Your task to perform on an android device: turn on location history Image 0: 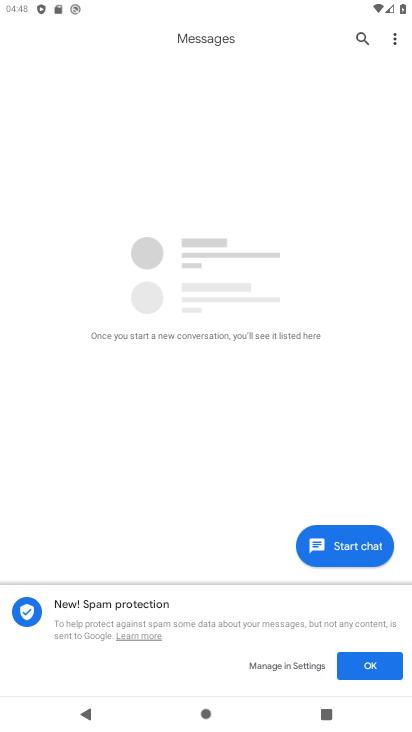
Step 0: press home button
Your task to perform on an android device: turn on location history Image 1: 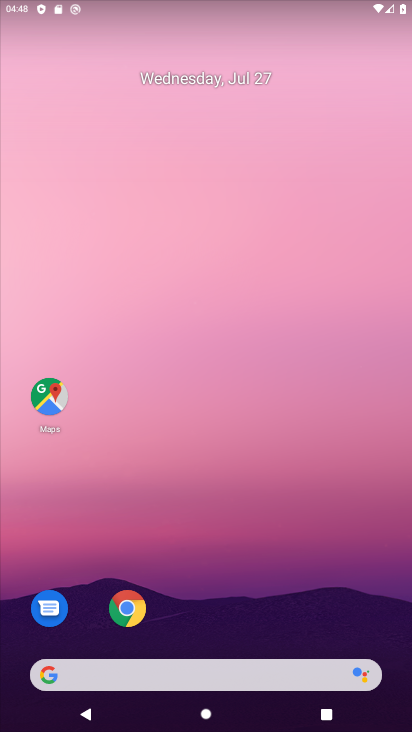
Step 1: drag from (278, 632) to (286, 283)
Your task to perform on an android device: turn on location history Image 2: 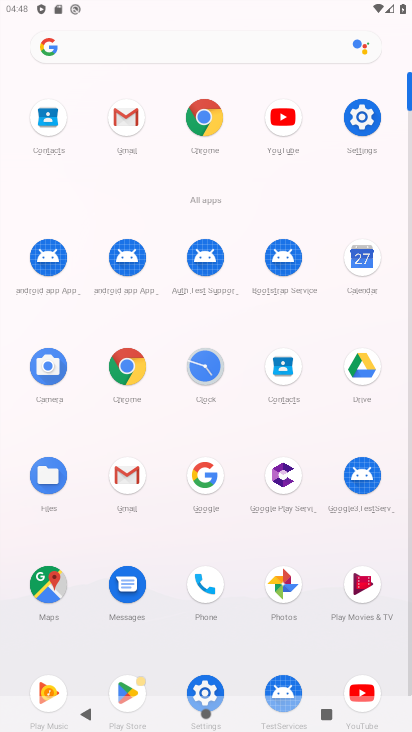
Step 2: click (351, 119)
Your task to perform on an android device: turn on location history Image 3: 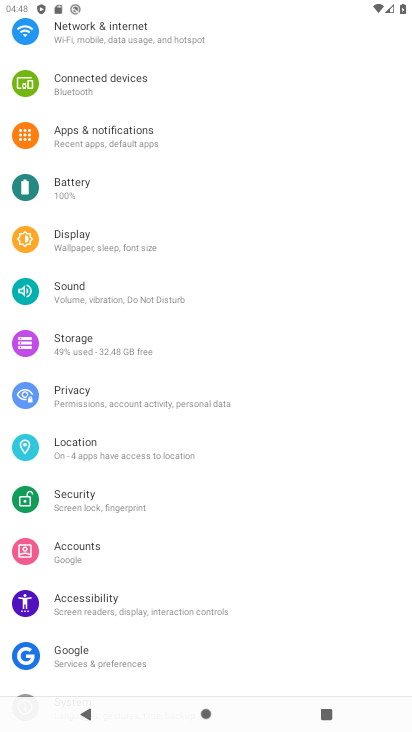
Step 3: click (92, 449)
Your task to perform on an android device: turn on location history Image 4: 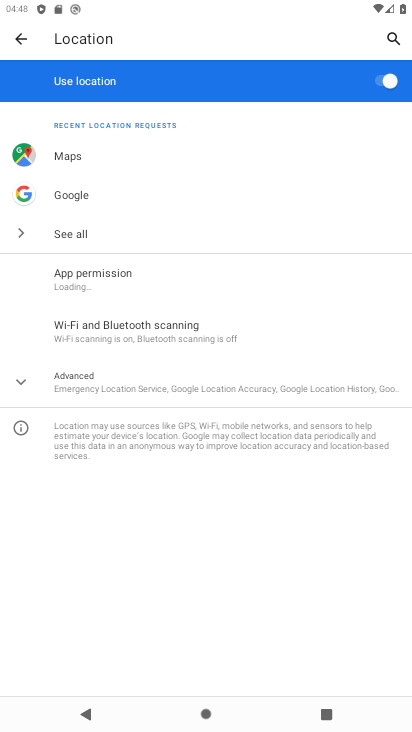
Step 4: click (97, 387)
Your task to perform on an android device: turn on location history Image 5: 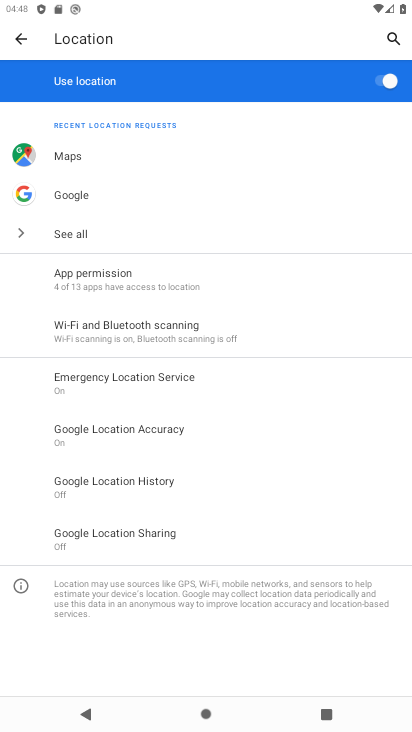
Step 5: click (132, 479)
Your task to perform on an android device: turn on location history Image 6: 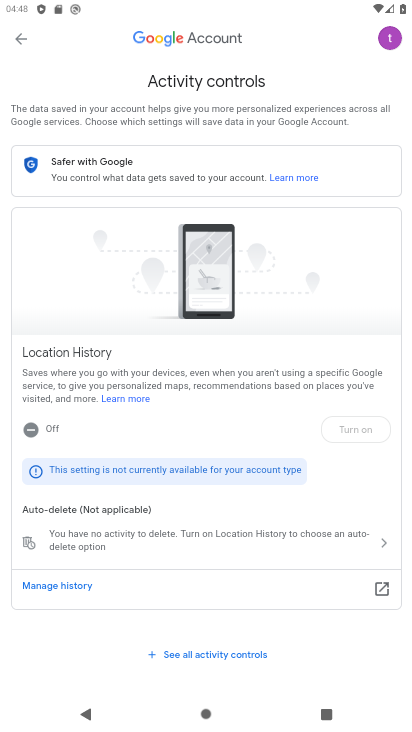
Step 6: click (362, 429)
Your task to perform on an android device: turn on location history Image 7: 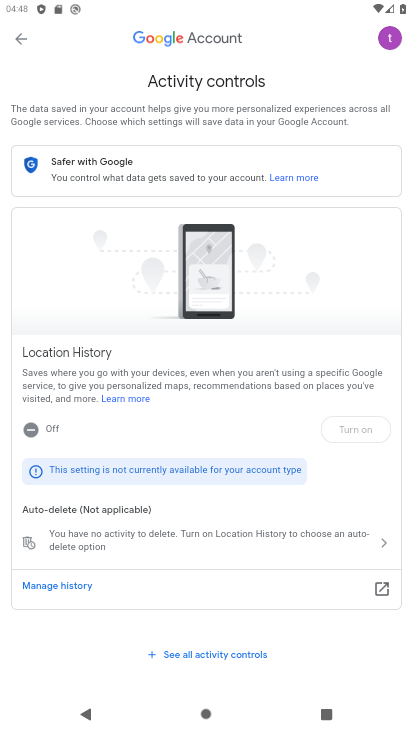
Step 7: click (362, 429)
Your task to perform on an android device: turn on location history Image 8: 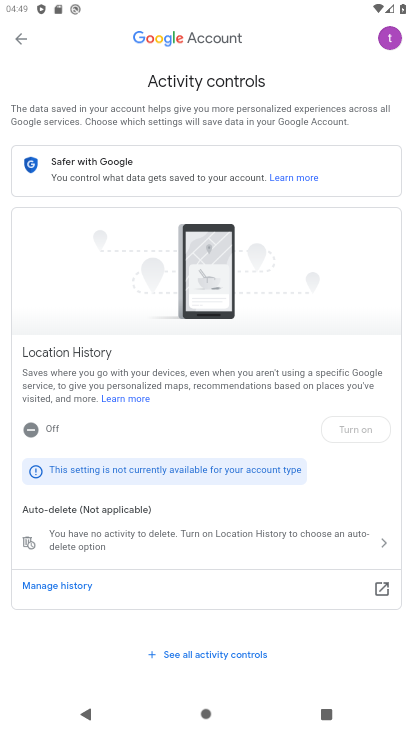
Step 8: task complete